Your task to perform on an android device: Show me the alarms in the clock app Image 0: 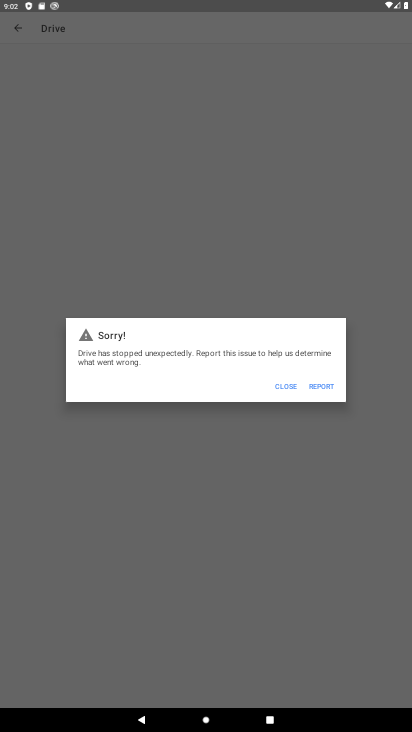
Step 0: press home button
Your task to perform on an android device: Show me the alarms in the clock app Image 1: 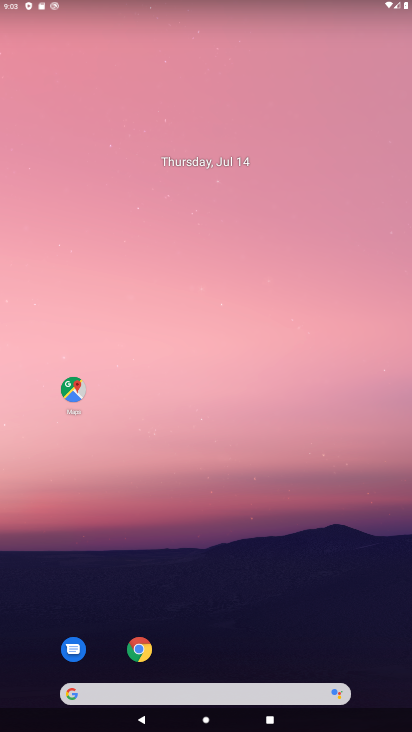
Step 1: drag from (196, 648) to (190, 231)
Your task to perform on an android device: Show me the alarms in the clock app Image 2: 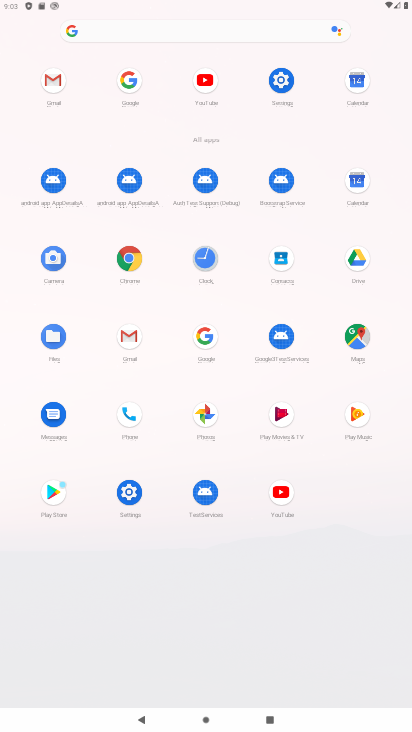
Step 2: click (193, 257)
Your task to perform on an android device: Show me the alarms in the clock app Image 3: 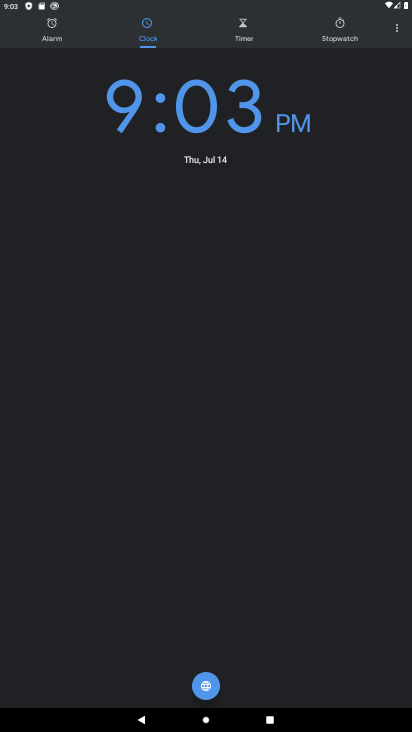
Step 3: click (58, 36)
Your task to perform on an android device: Show me the alarms in the clock app Image 4: 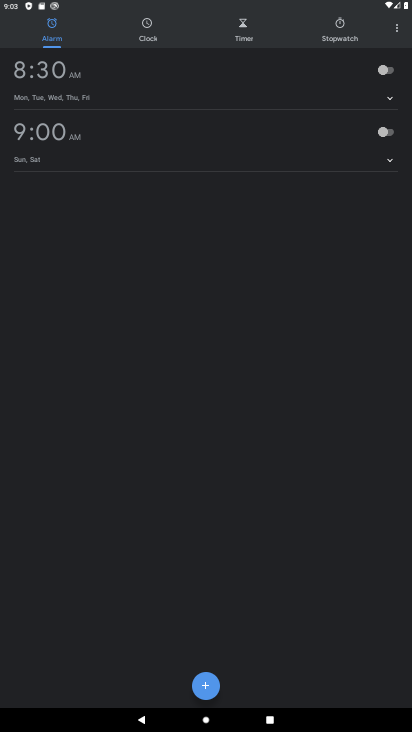
Step 4: task complete